Your task to perform on an android device: visit the assistant section in the google photos Image 0: 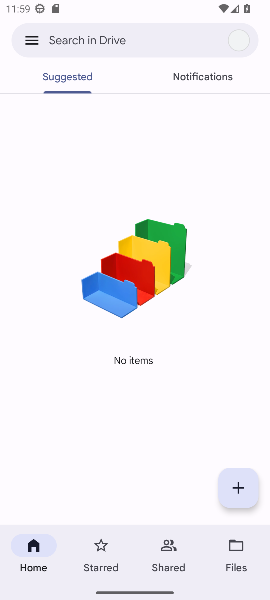
Step 0: press home button
Your task to perform on an android device: visit the assistant section in the google photos Image 1: 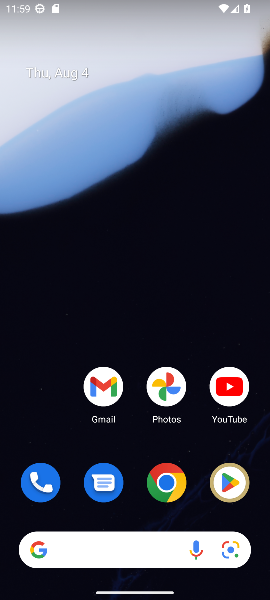
Step 1: click (154, 388)
Your task to perform on an android device: visit the assistant section in the google photos Image 2: 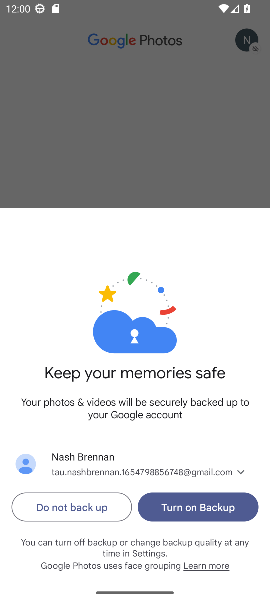
Step 2: click (58, 514)
Your task to perform on an android device: visit the assistant section in the google photos Image 3: 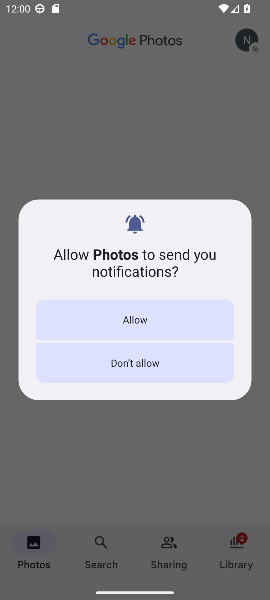
Step 3: click (153, 323)
Your task to perform on an android device: visit the assistant section in the google photos Image 4: 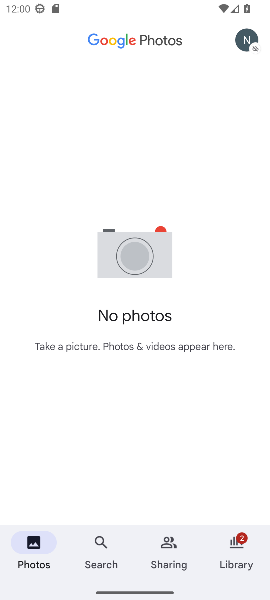
Step 4: click (242, 39)
Your task to perform on an android device: visit the assistant section in the google photos Image 5: 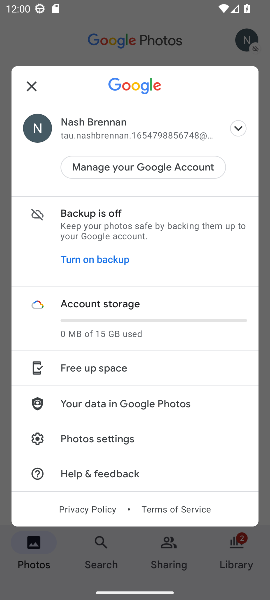
Step 5: click (35, 87)
Your task to perform on an android device: visit the assistant section in the google photos Image 6: 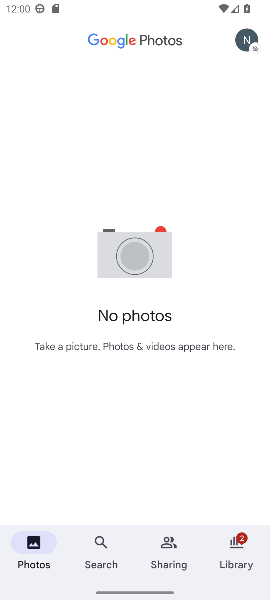
Step 6: click (235, 545)
Your task to perform on an android device: visit the assistant section in the google photos Image 7: 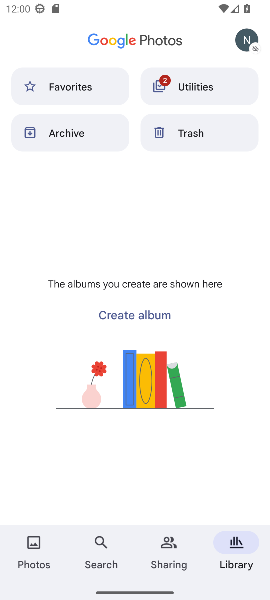
Step 7: drag from (154, 461) to (165, 259)
Your task to perform on an android device: visit the assistant section in the google photos Image 8: 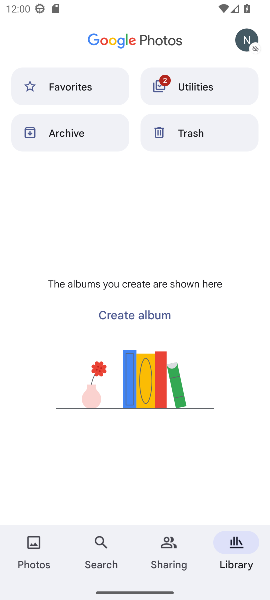
Step 8: click (157, 548)
Your task to perform on an android device: visit the assistant section in the google photos Image 9: 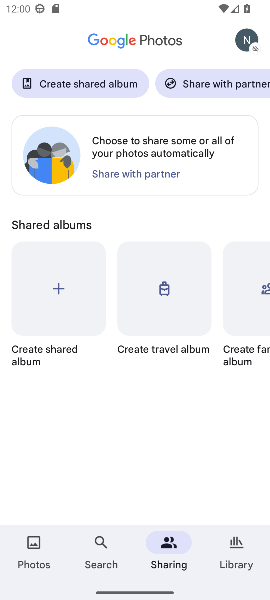
Step 9: click (99, 546)
Your task to perform on an android device: visit the assistant section in the google photos Image 10: 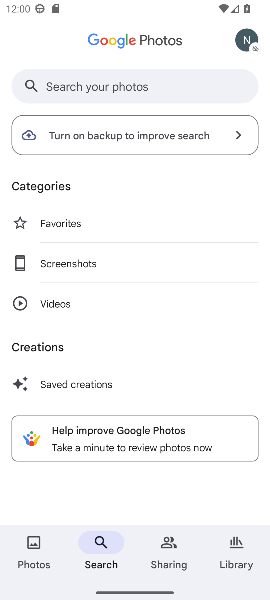
Step 10: click (28, 561)
Your task to perform on an android device: visit the assistant section in the google photos Image 11: 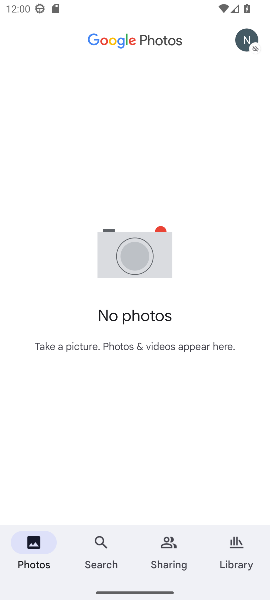
Step 11: click (28, 561)
Your task to perform on an android device: visit the assistant section in the google photos Image 12: 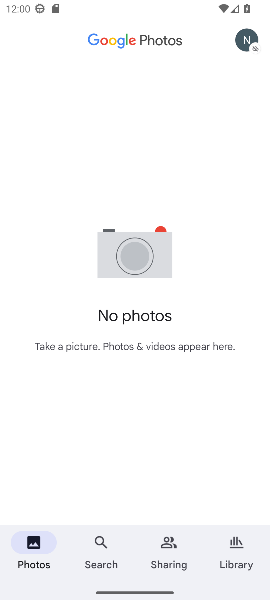
Step 12: task complete